Your task to perform on an android device: Add "usb-b" to the cart on ebay.com, then select checkout. Image 0: 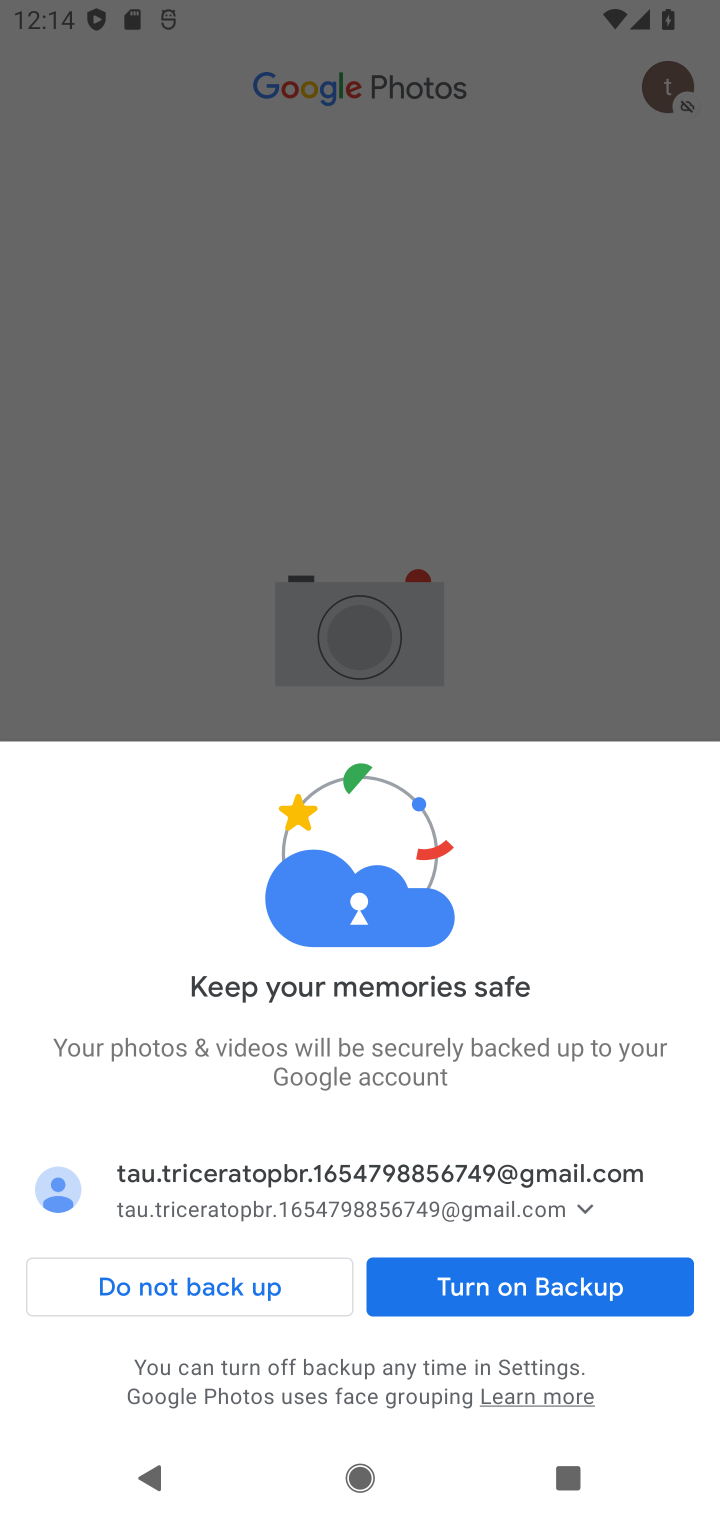
Step 0: press home button
Your task to perform on an android device: Add "usb-b" to the cart on ebay.com, then select checkout. Image 1: 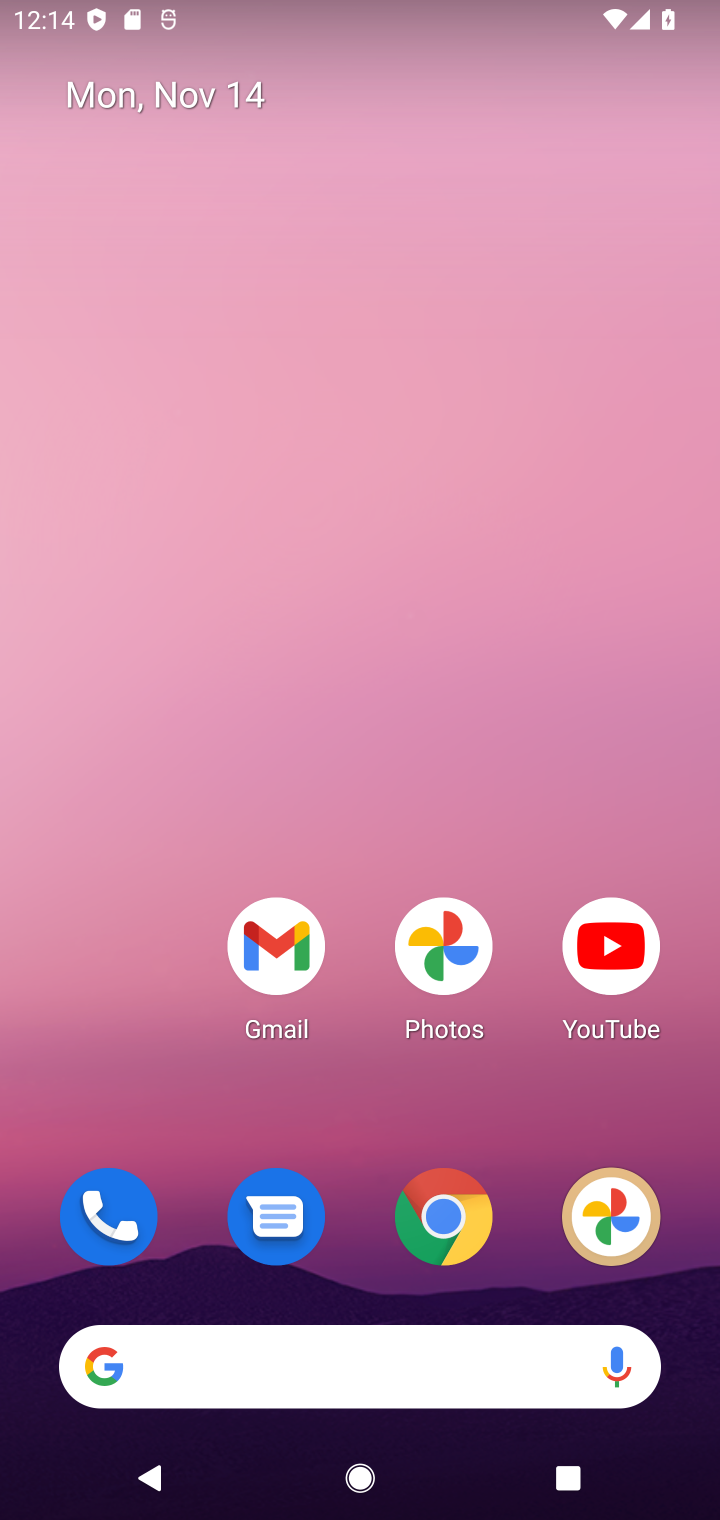
Step 1: click (427, 1202)
Your task to perform on an android device: Add "usb-b" to the cart on ebay.com, then select checkout. Image 2: 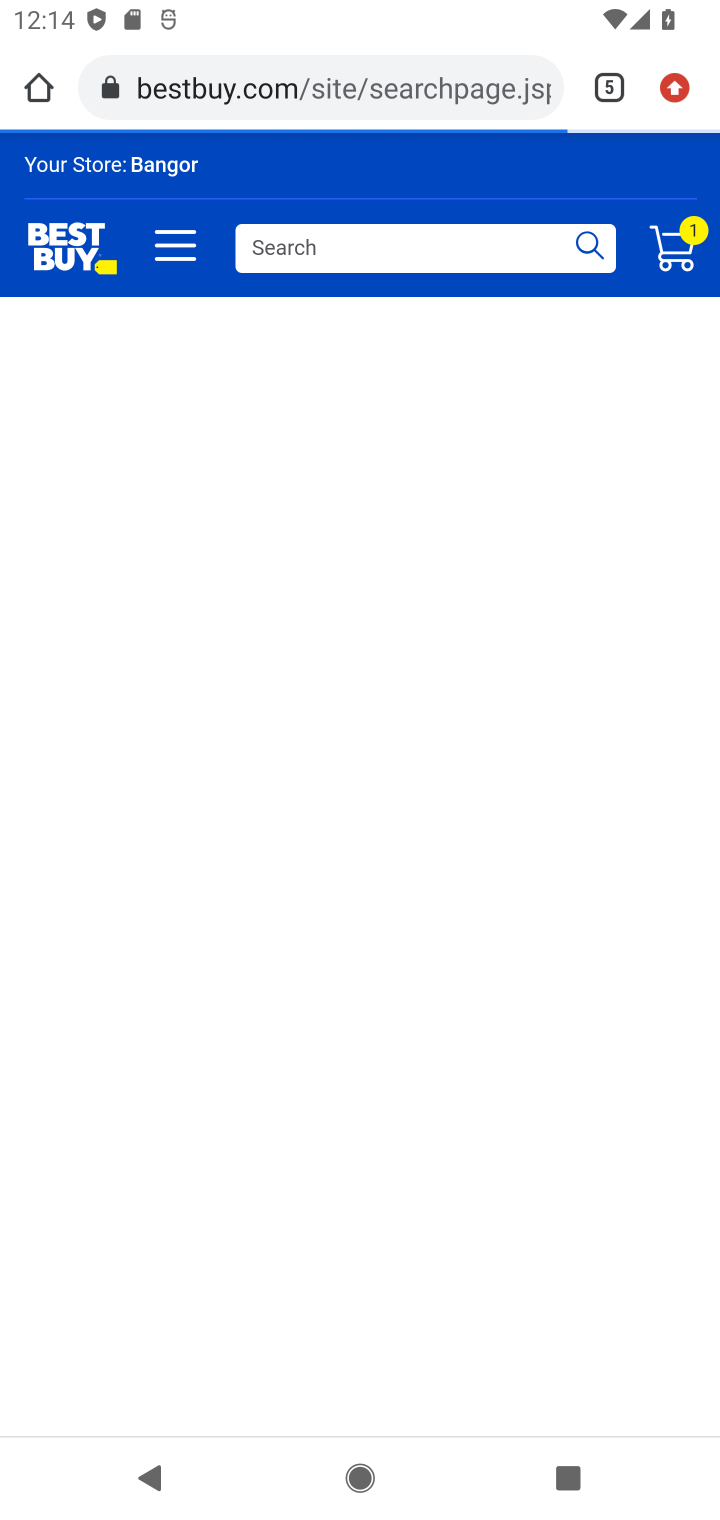
Step 2: click (602, 87)
Your task to perform on an android device: Add "usb-b" to the cart on ebay.com, then select checkout. Image 3: 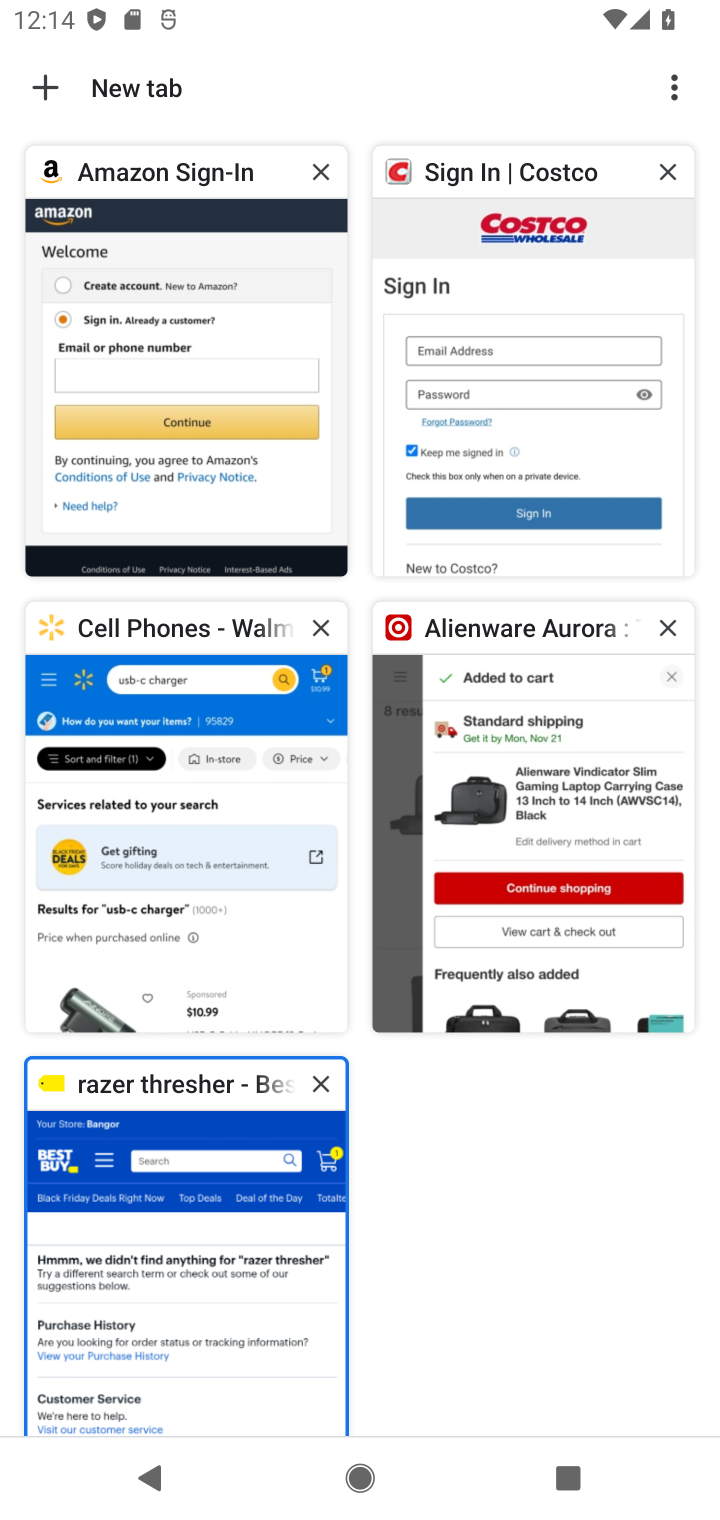
Step 3: click (39, 82)
Your task to perform on an android device: Add "usb-b" to the cart on ebay.com, then select checkout. Image 4: 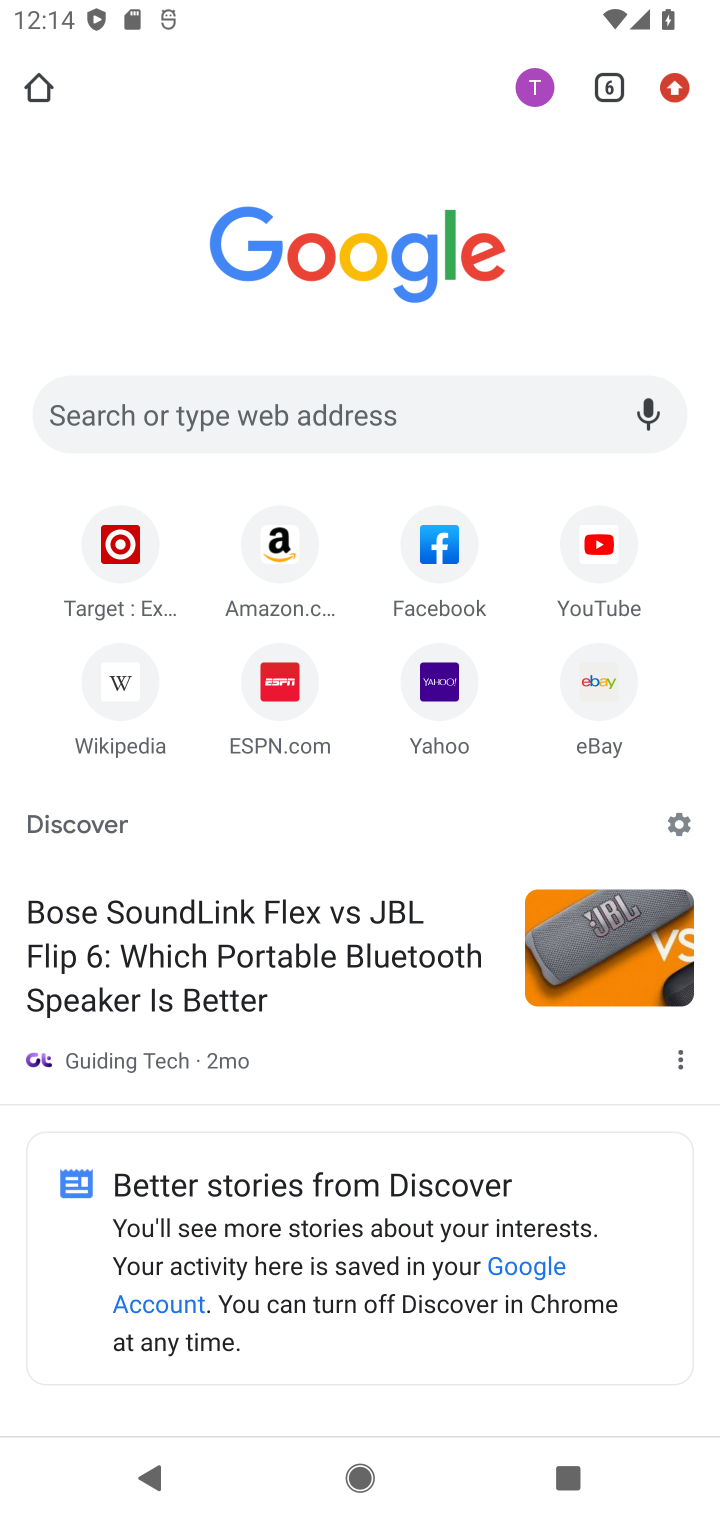
Step 4: click (602, 690)
Your task to perform on an android device: Add "usb-b" to the cart on ebay.com, then select checkout. Image 5: 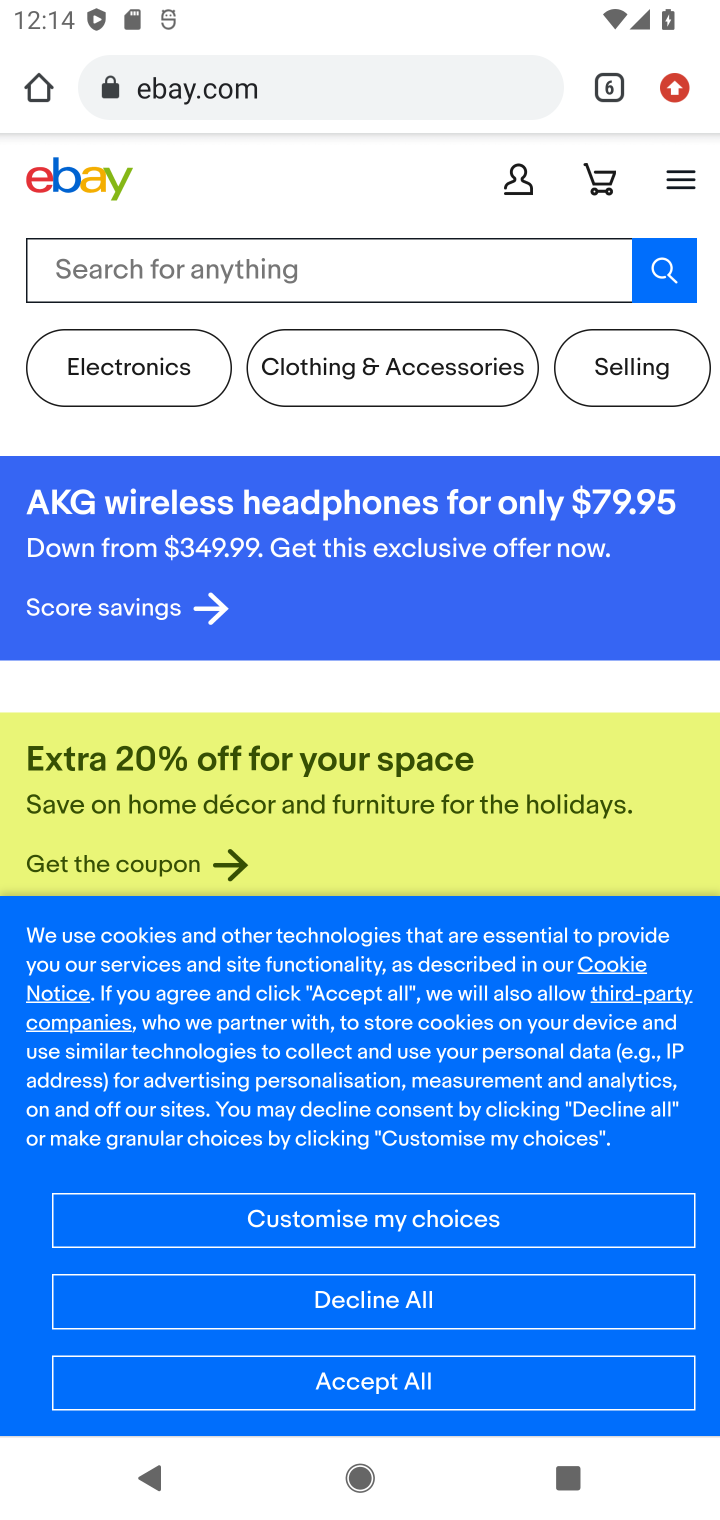
Step 5: click (443, 1294)
Your task to perform on an android device: Add "usb-b" to the cart on ebay.com, then select checkout. Image 6: 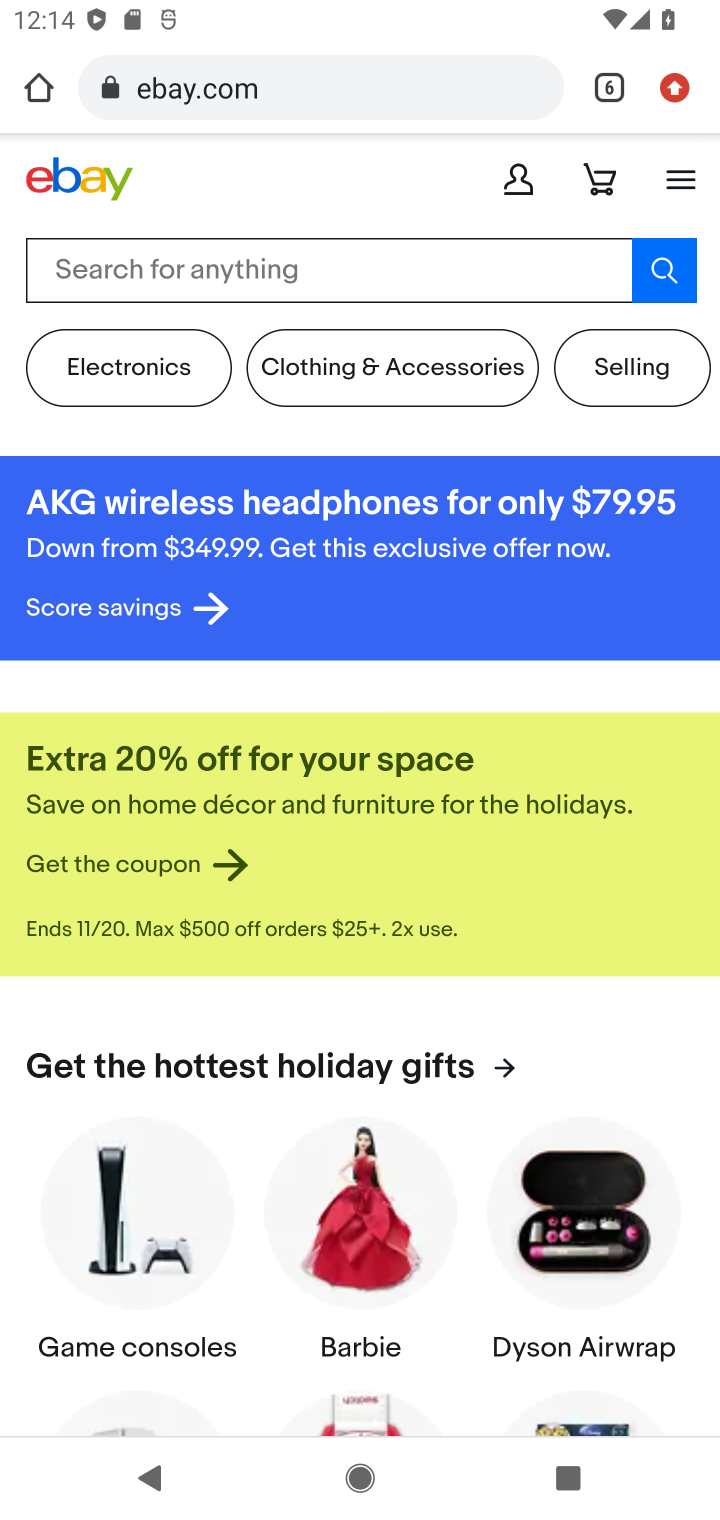
Step 6: click (282, 271)
Your task to perform on an android device: Add "usb-b" to the cart on ebay.com, then select checkout. Image 7: 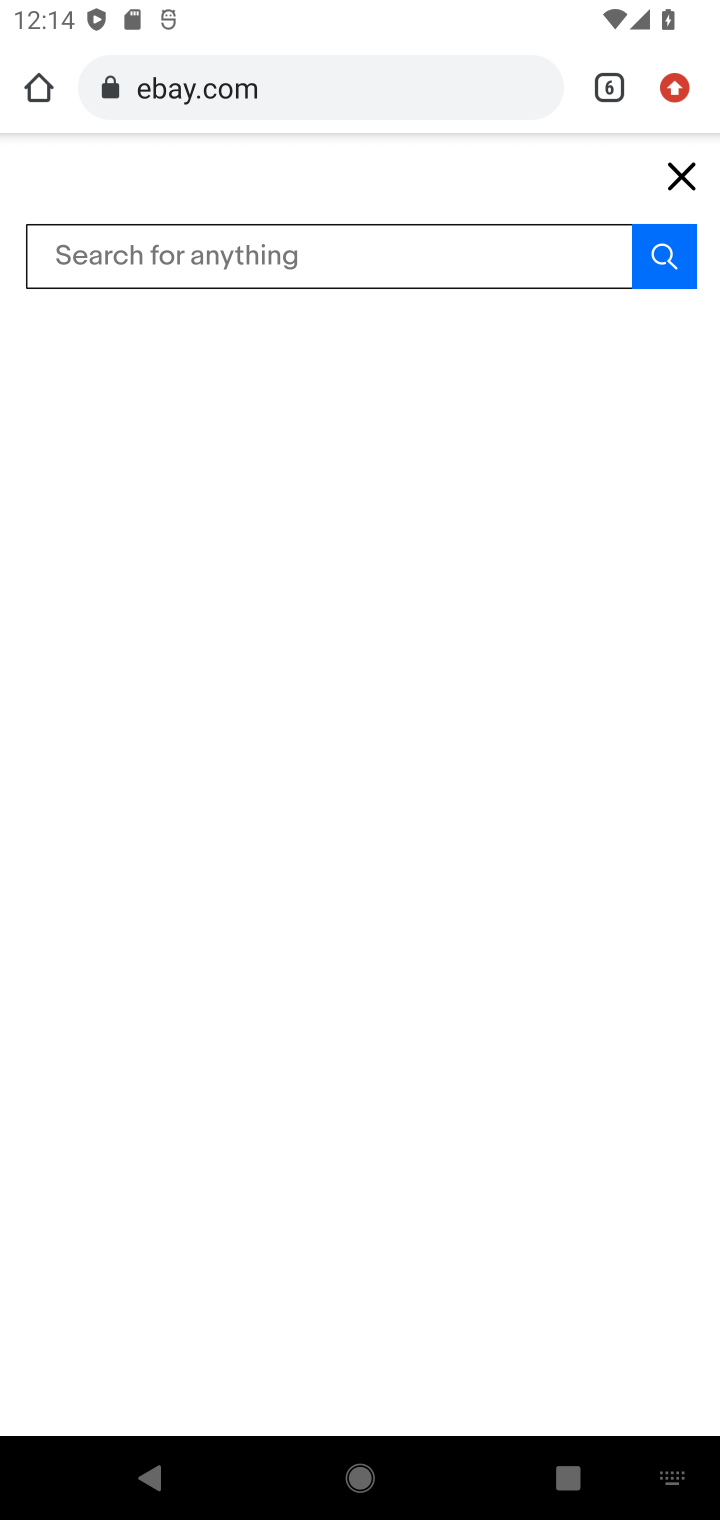
Step 7: type "usb-b"
Your task to perform on an android device: Add "usb-b" to the cart on ebay.com, then select checkout. Image 8: 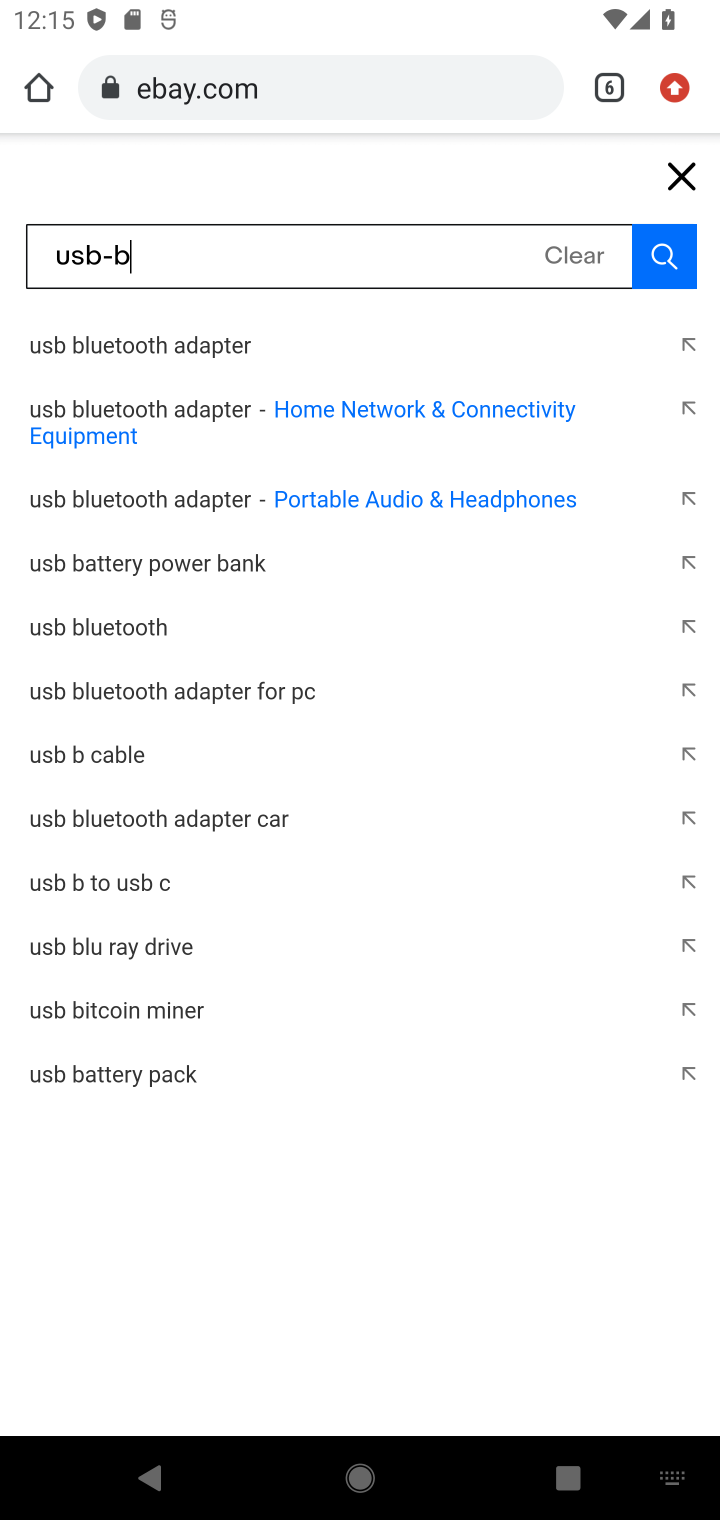
Step 8: click (655, 257)
Your task to perform on an android device: Add "usb-b" to the cart on ebay.com, then select checkout. Image 9: 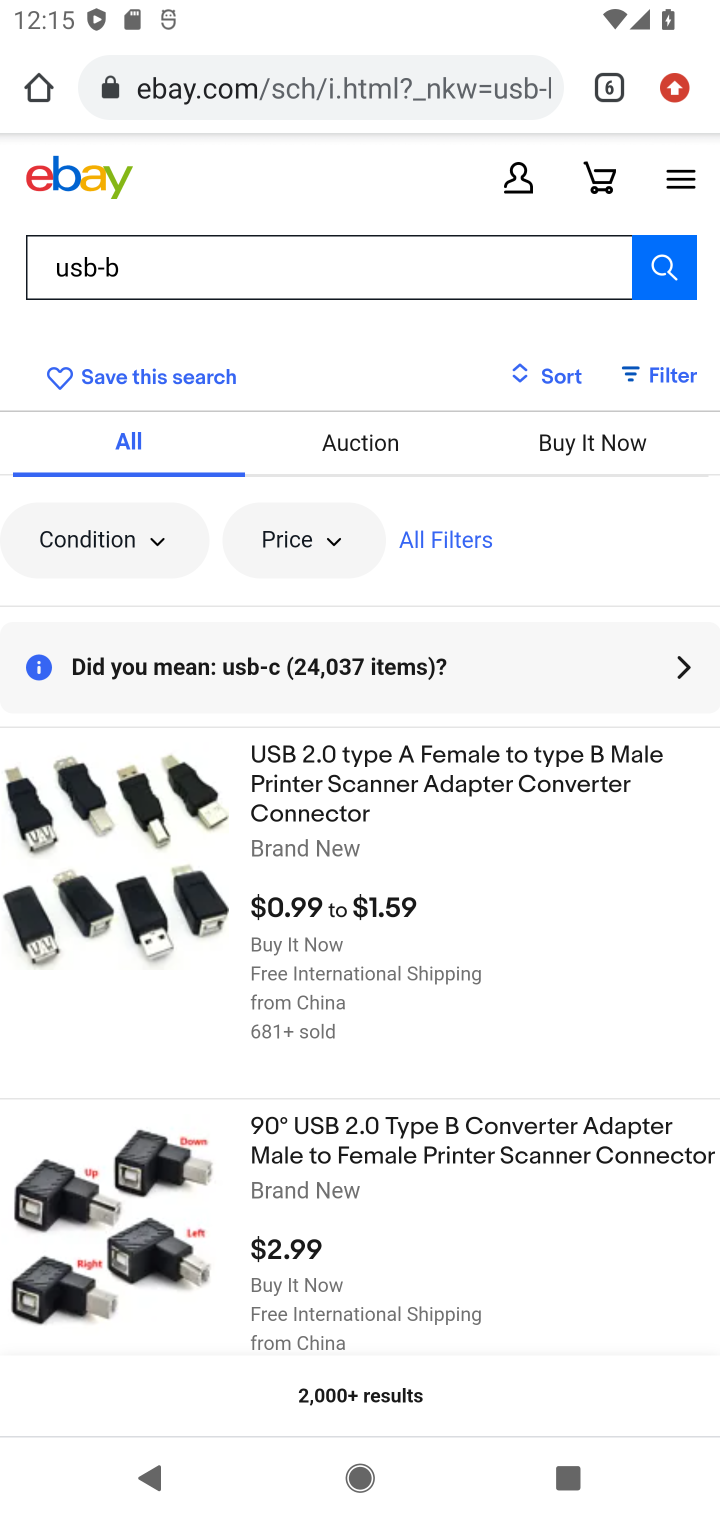
Step 9: click (496, 793)
Your task to perform on an android device: Add "usb-b" to the cart on ebay.com, then select checkout. Image 10: 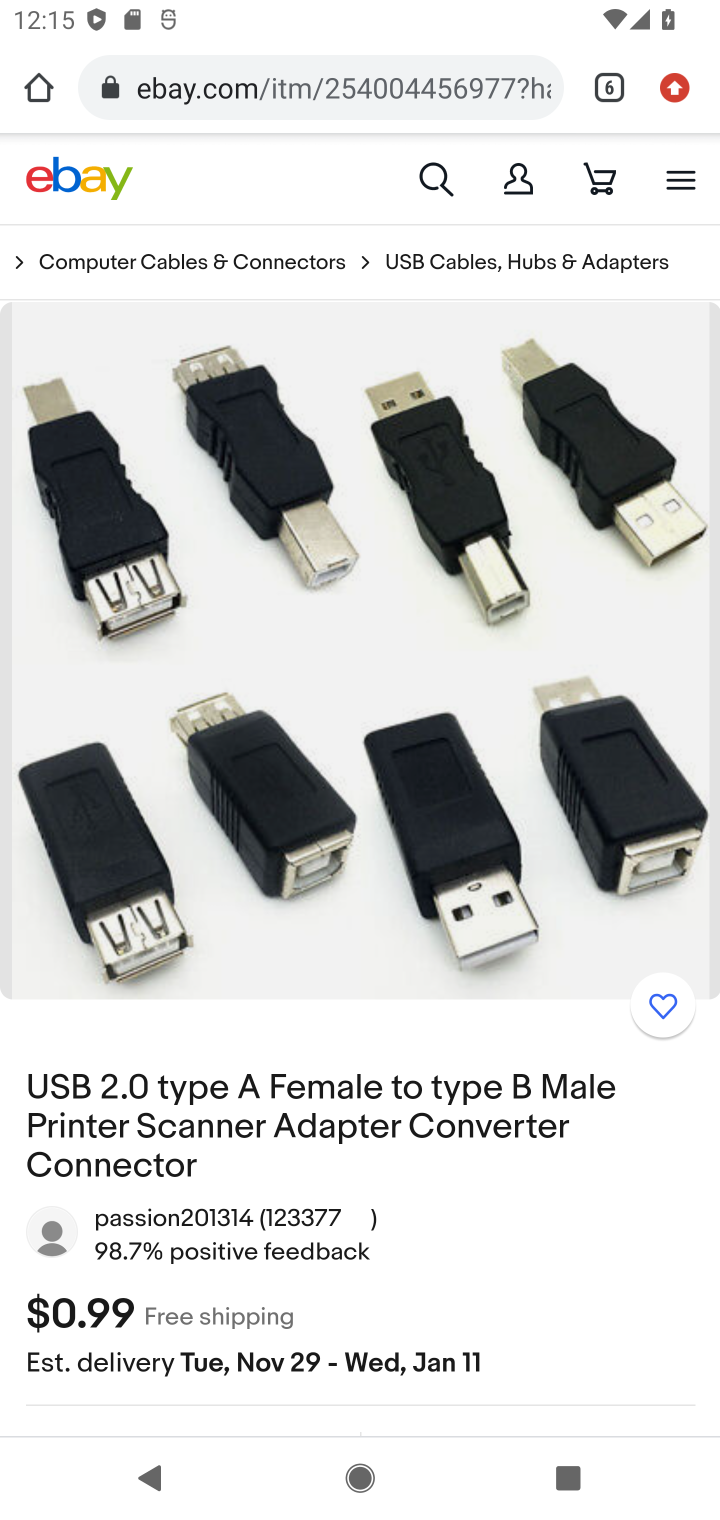
Step 10: drag from (559, 1239) to (648, 273)
Your task to perform on an android device: Add "usb-b" to the cart on ebay.com, then select checkout. Image 11: 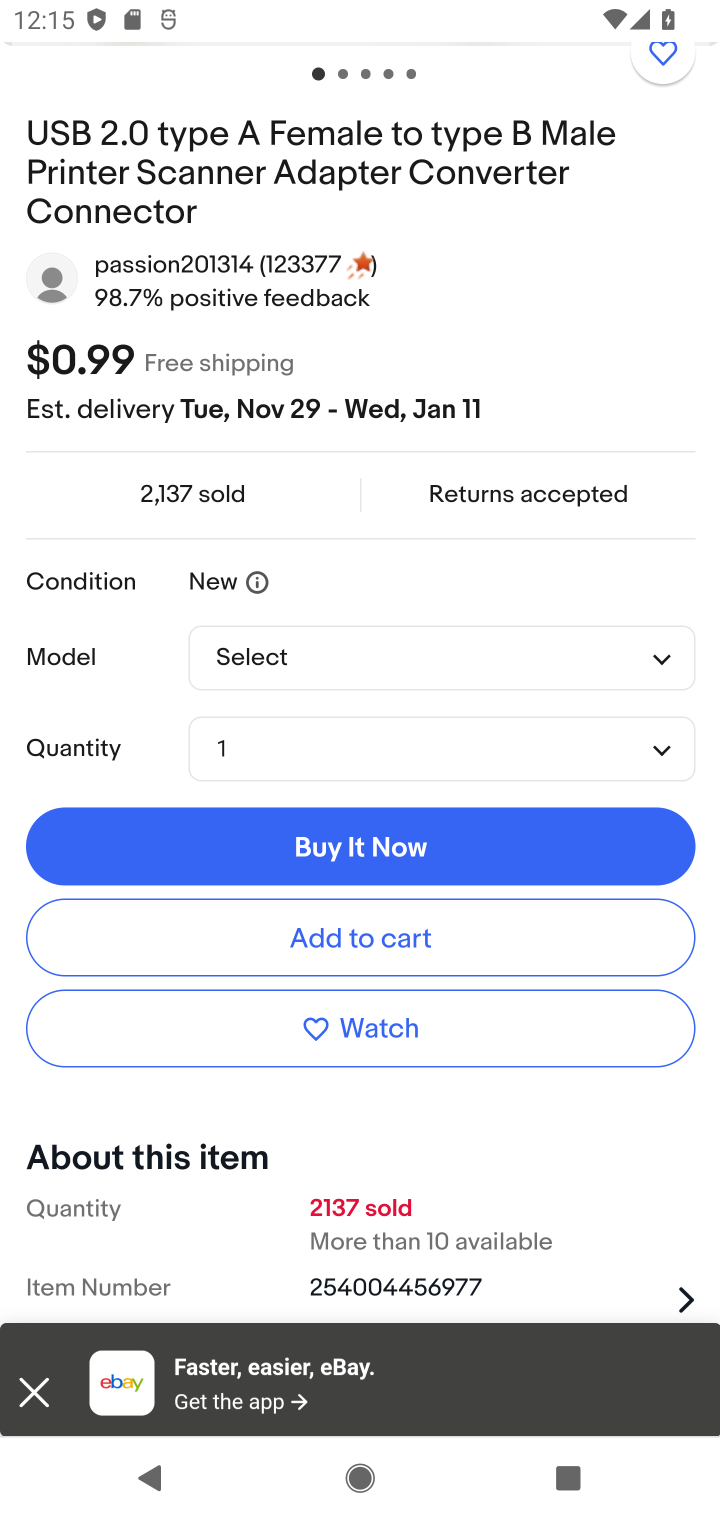
Step 11: drag from (478, 1156) to (703, 550)
Your task to perform on an android device: Add "usb-b" to the cart on ebay.com, then select checkout. Image 12: 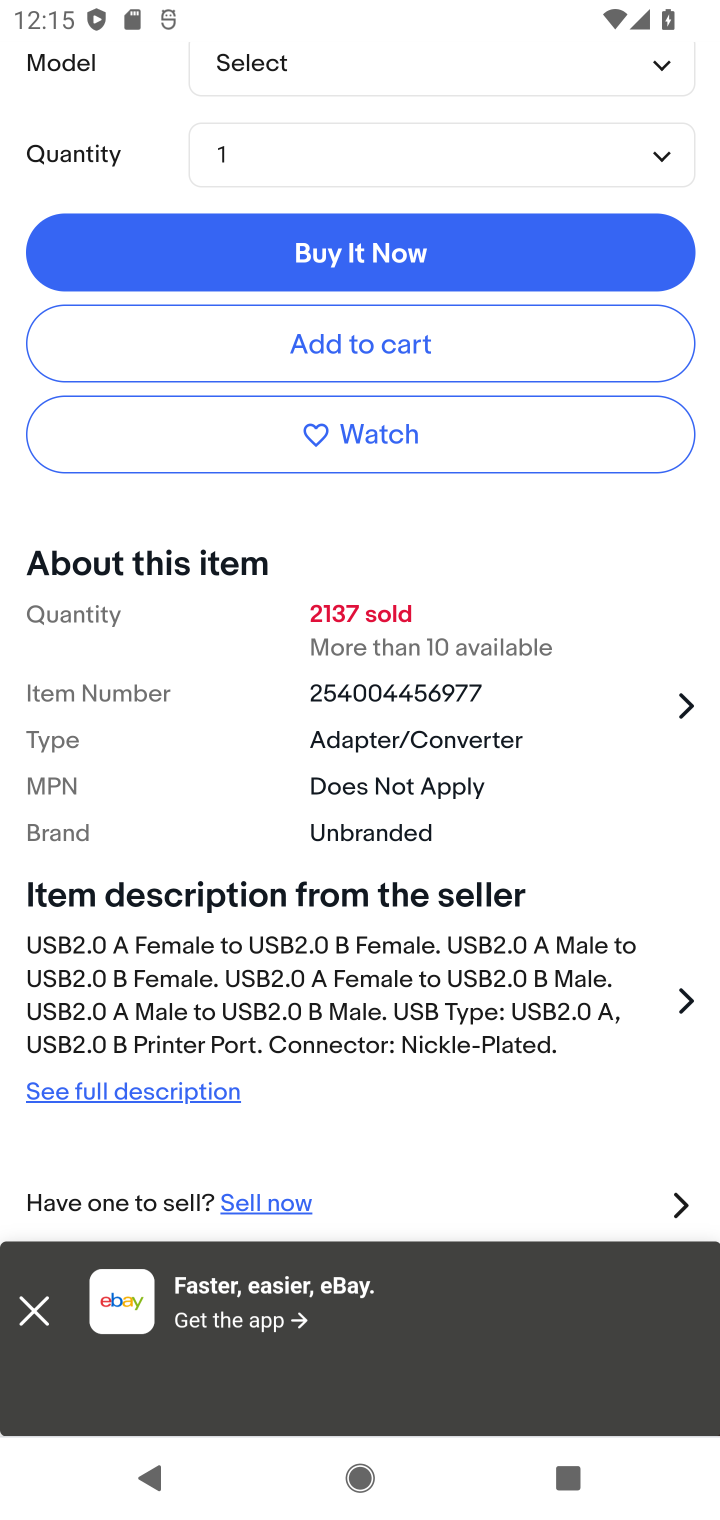
Step 12: click (419, 355)
Your task to perform on an android device: Add "usb-b" to the cart on ebay.com, then select checkout. Image 13: 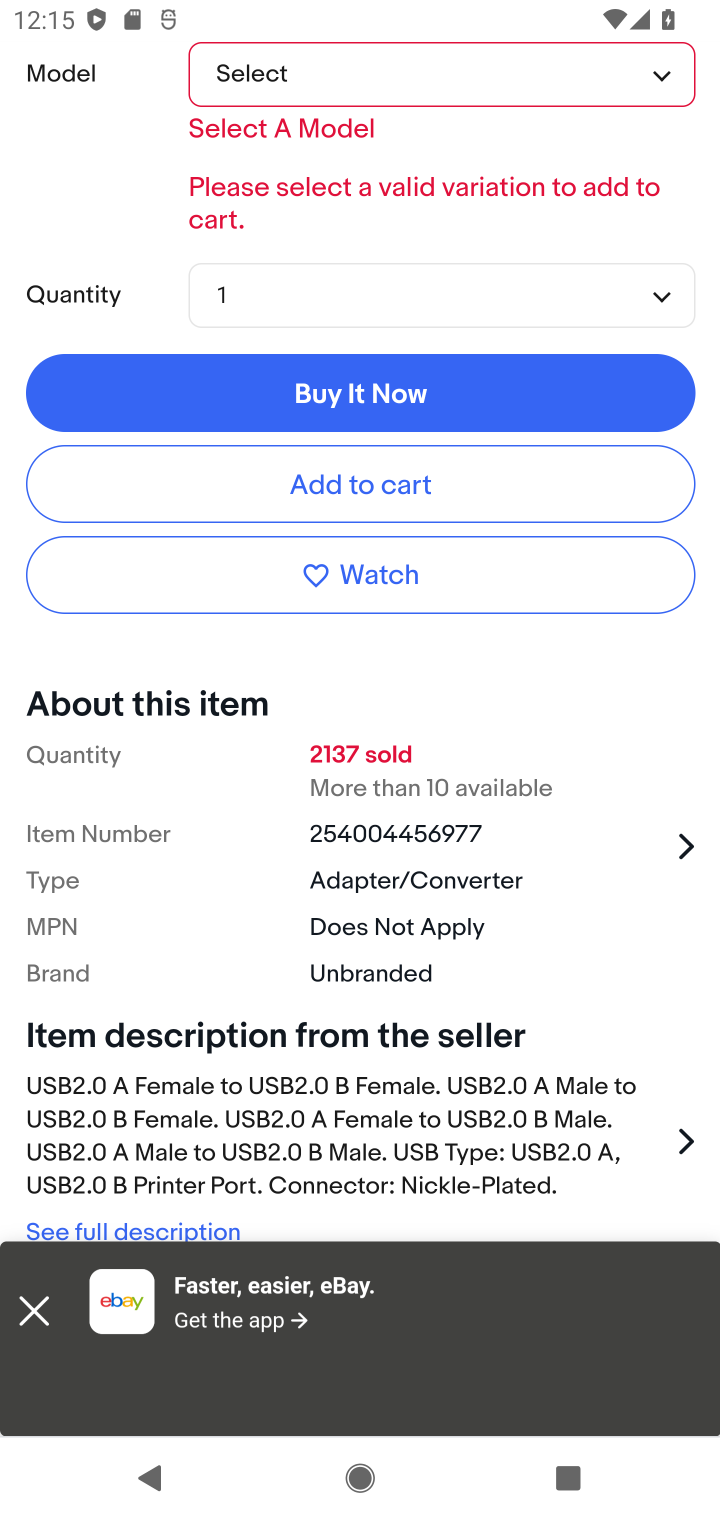
Step 13: click (662, 69)
Your task to perform on an android device: Add "usb-b" to the cart on ebay.com, then select checkout. Image 14: 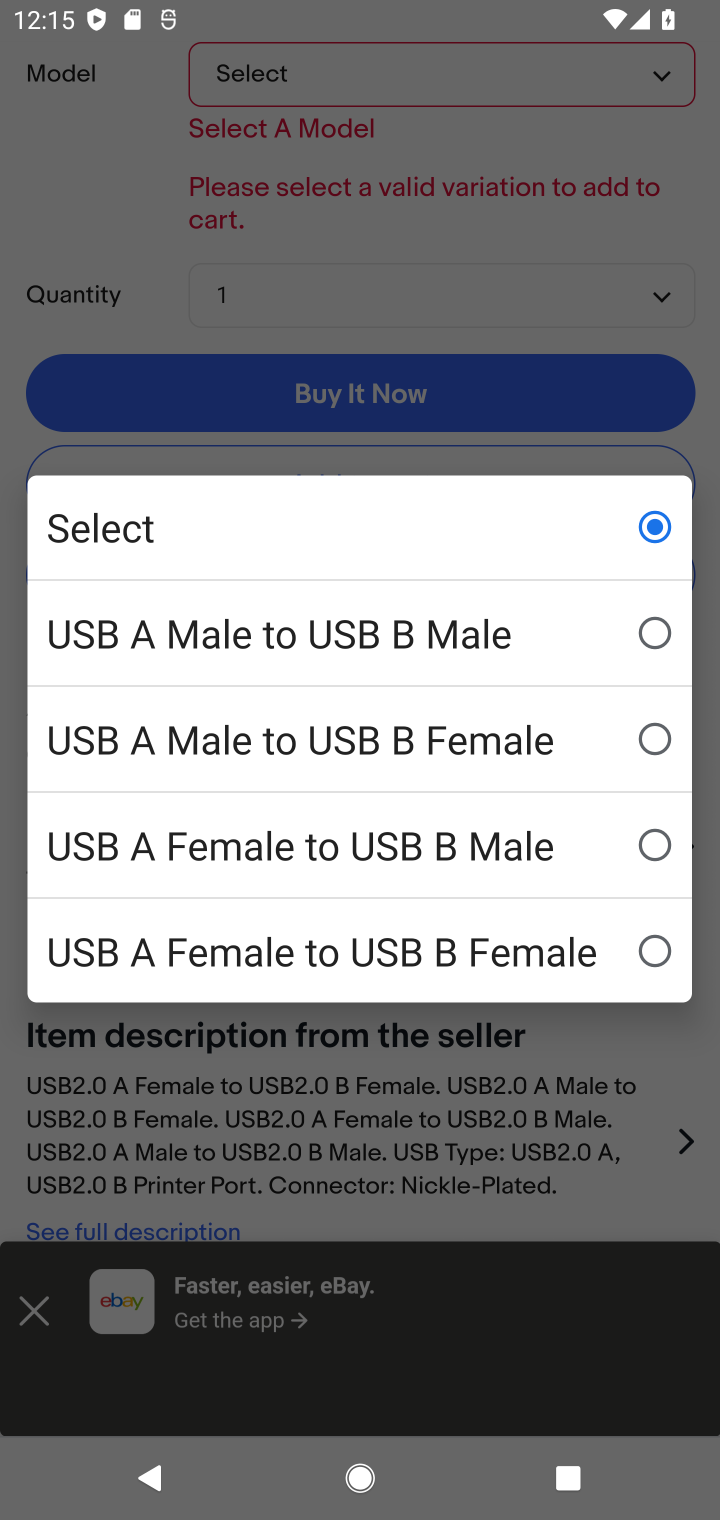
Step 14: click (663, 623)
Your task to perform on an android device: Add "usb-b" to the cart on ebay.com, then select checkout. Image 15: 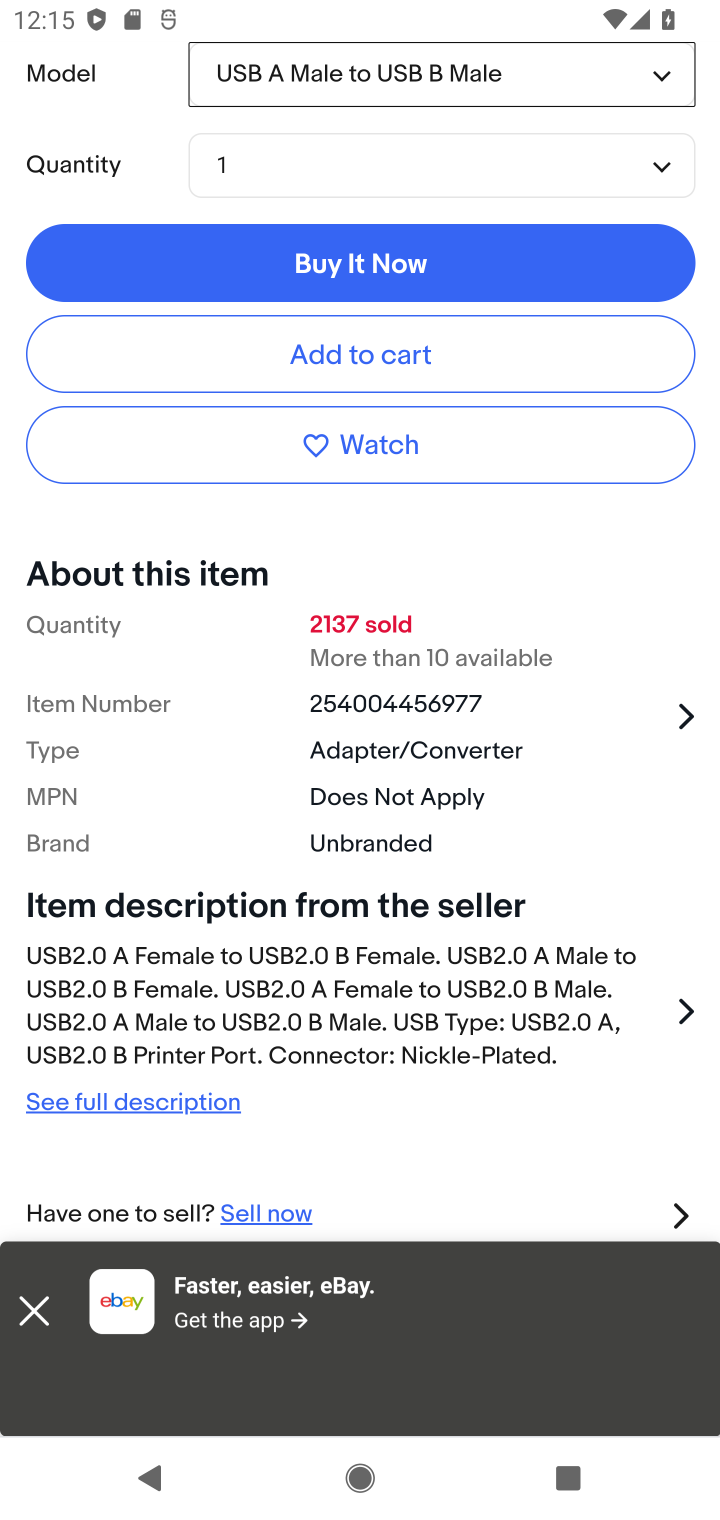
Step 15: click (455, 352)
Your task to perform on an android device: Add "usb-b" to the cart on ebay.com, then select checkout. Image 16: 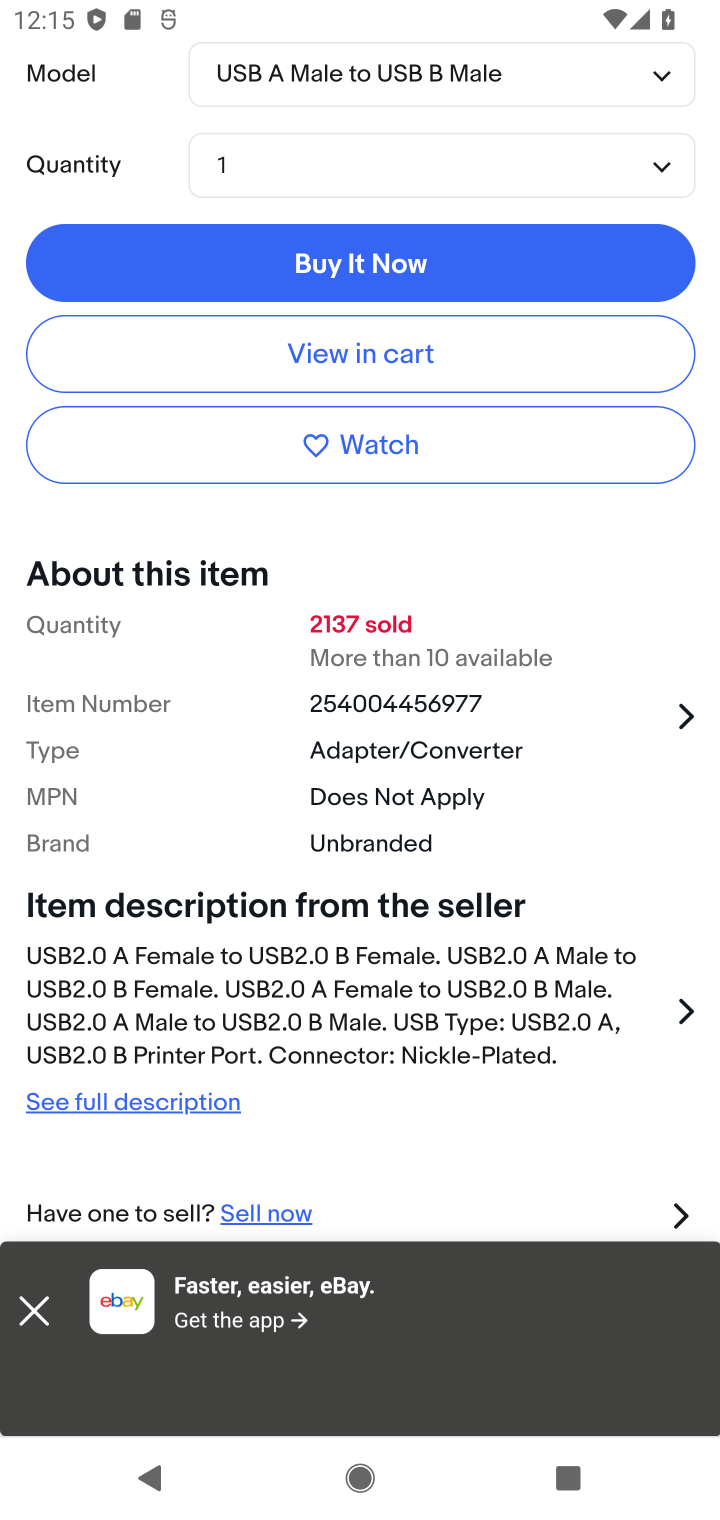
Step 16: click (434, 362)
Your task to perform on an android device: Add "usb-b" to the cart on ebay.com, then select checkout. Image 17: 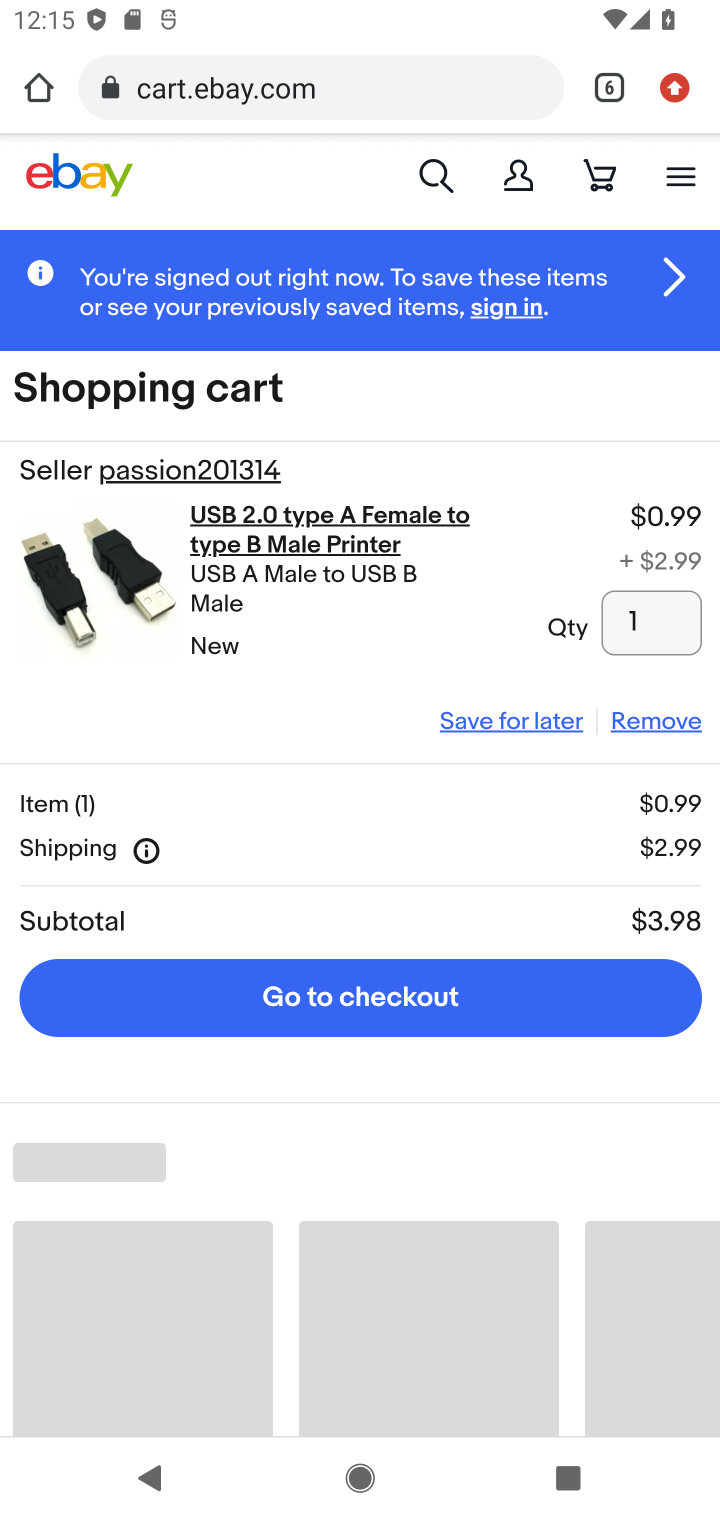
Step 17: click (446, 1005)
Your task to perform on an android device: Add "usb-b" to the cart on ebay.com, then select checkout. Image 18: 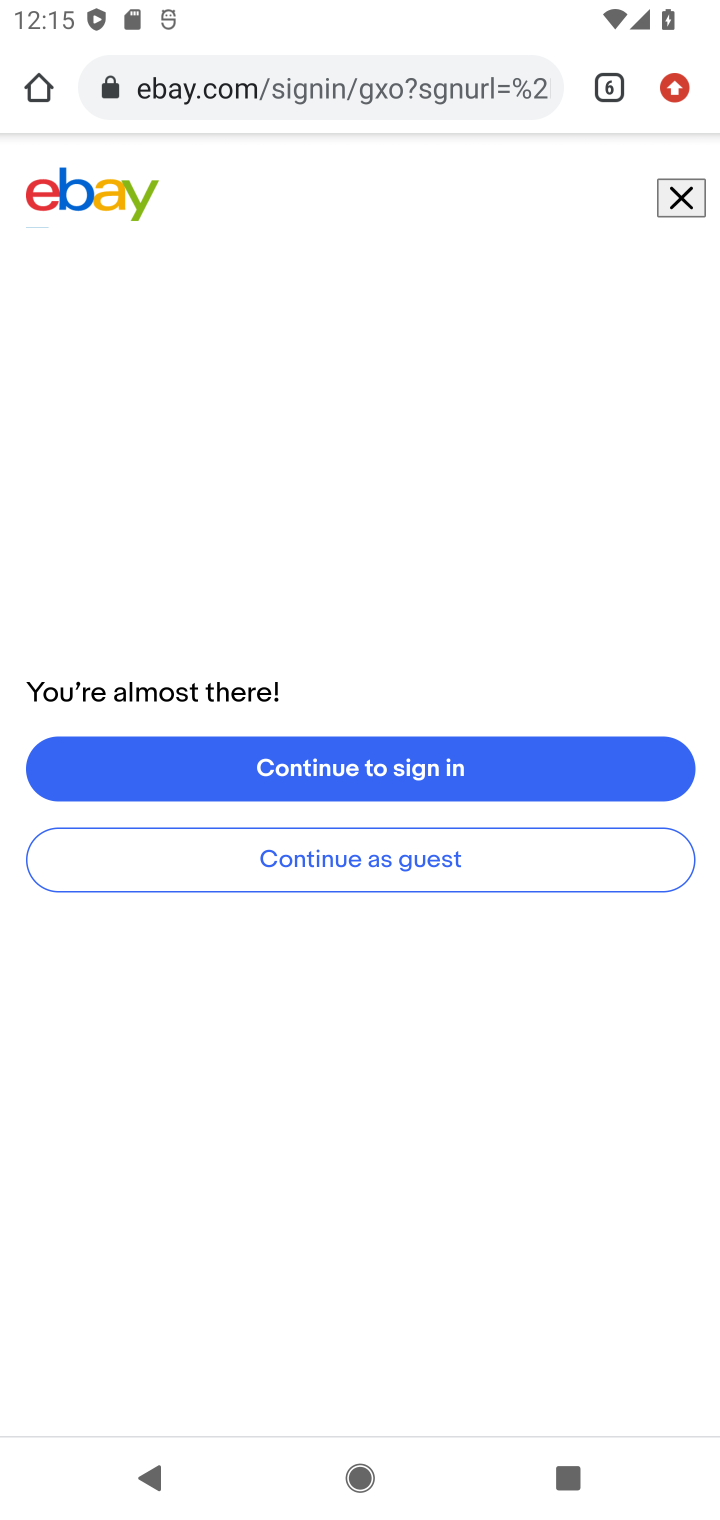
Step 18: task complete